Your task to perform on an android device: Go to privacy settings Image 0: 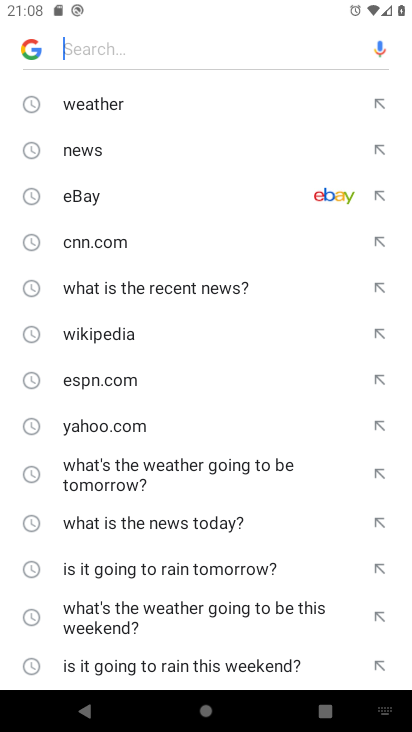
Step 0: press home button
Your task to perform on an android device: Go to privacy settings Image 1: 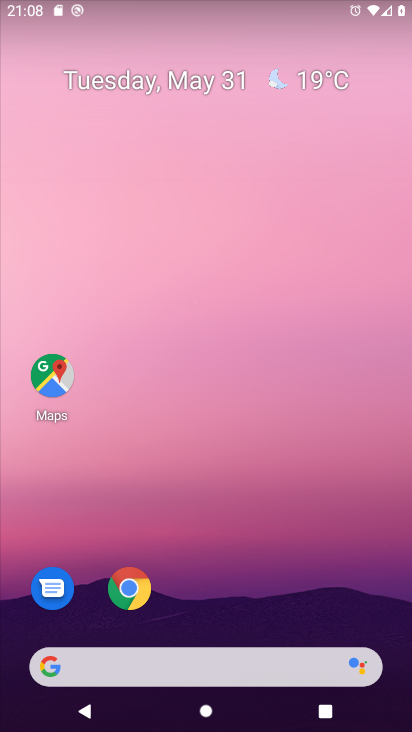
Step 1: drag from (146, 666) to (293, 80)
Your task to perform on an android device: Go to privacy settings Image 2: 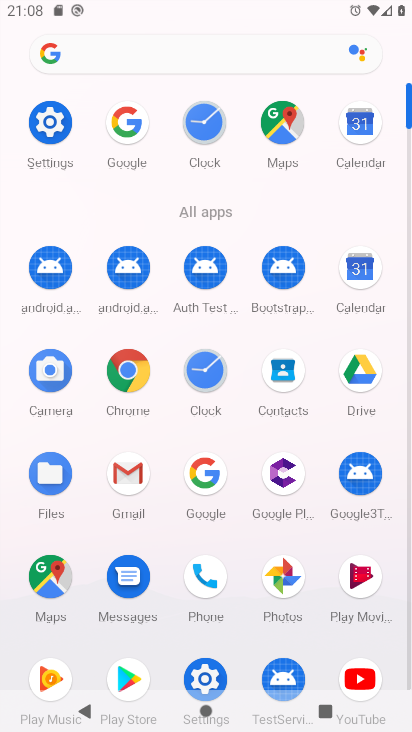
Step 2: click (56, 127)
Your task to perform on an android device: Go to privacy settings Image 3: 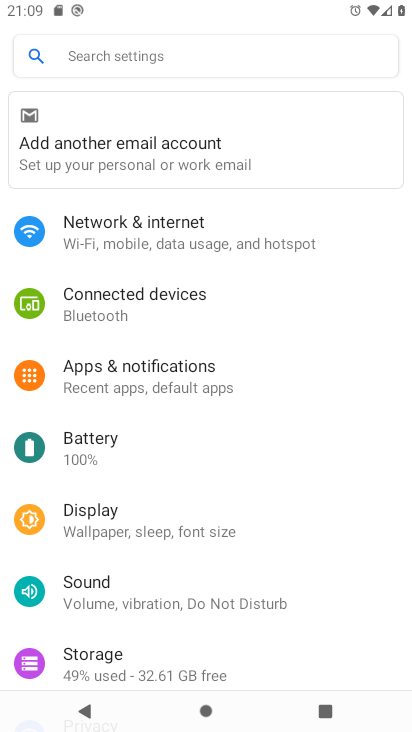
Step 3: drag from (163, 570) to (306, 218)
Your task to perform on an android device: Go to privacy settings Image 4: 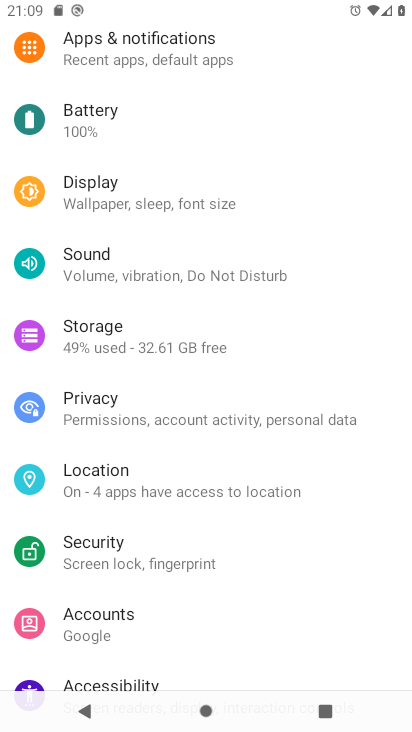
Step 4: click (110, 403)
Your task to perform on an android device: Go to privacy settings Image 5: 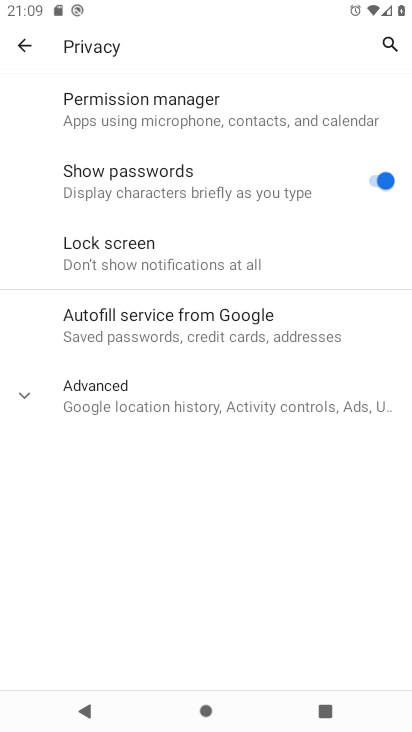
Step 5: task complete